Your task to perform on an android device: allow notifications from all sites in the chrome app Image 0: 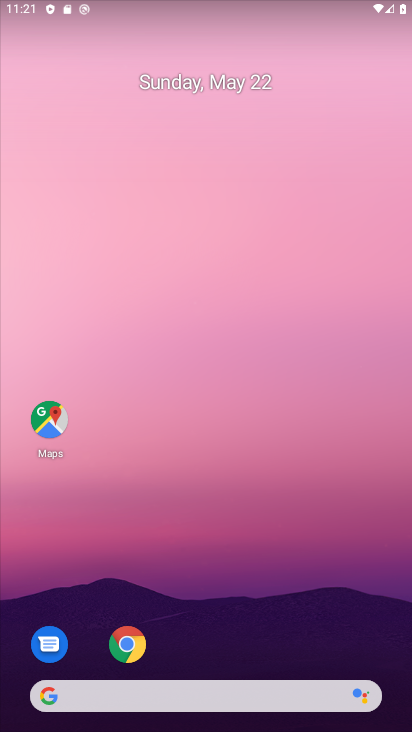
Step 0: drag from (326, 639) to (280, 82)
Your task to perform on an android device: allow notifications from all sites in the chrome app Image 1: 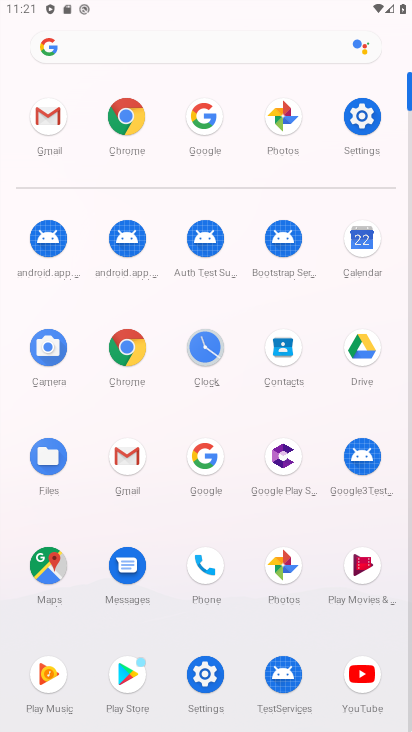
Step 1: click (118, 132)
Your task to perform on an android device: allow notifications from all sites in the chrome app Image 2: 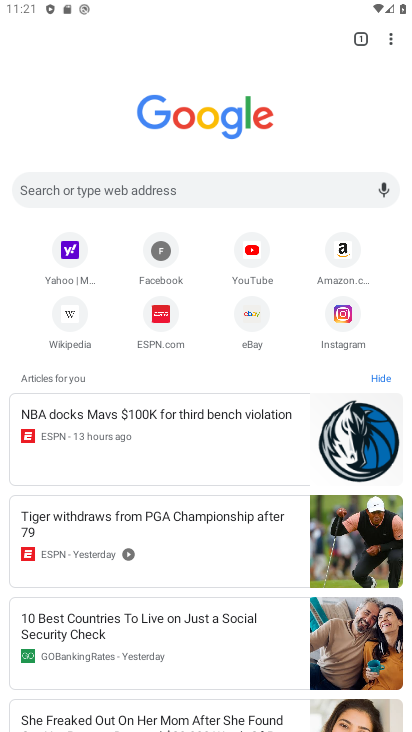
Step 2: click (393, 37)
Your task to perform on an android device: allow notifications from all sites in the chrome app Image 3: 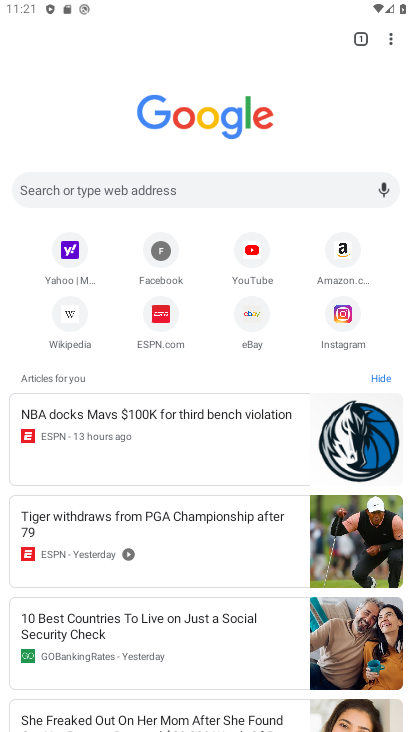
Step 3: click (388, 33)
Your task to perform on an android device: allow notifications from all sites in the chrome app Image 4: 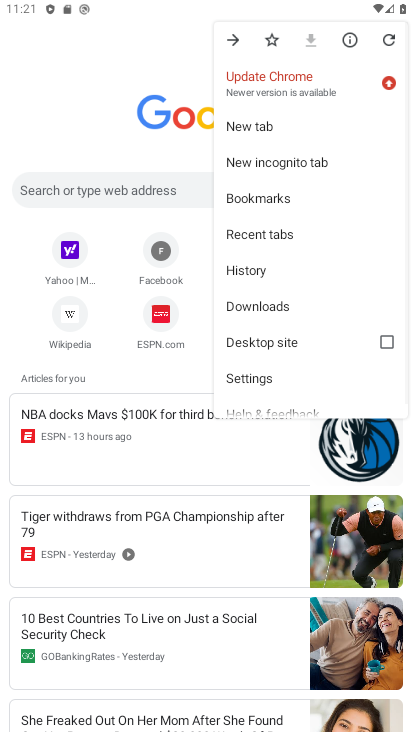
Step 4: click (262, 383)
Your task to perform on an android device: allow notifications from all sites in the chrome app Image 5: 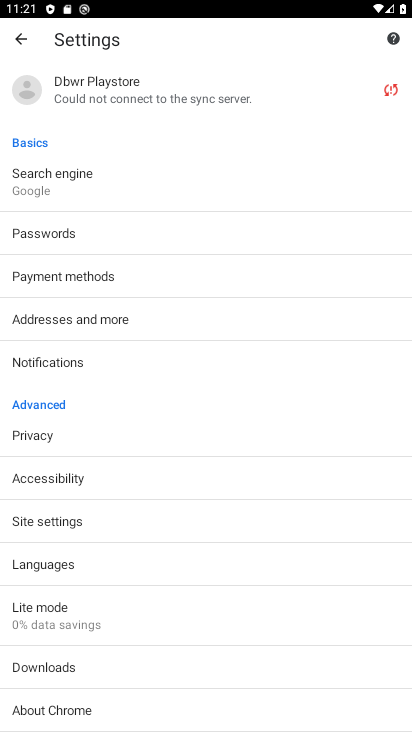
Step 5: click (82, 355)
Your task to perform on an android device: allow notifications from all sites in the chrome app Image 6: 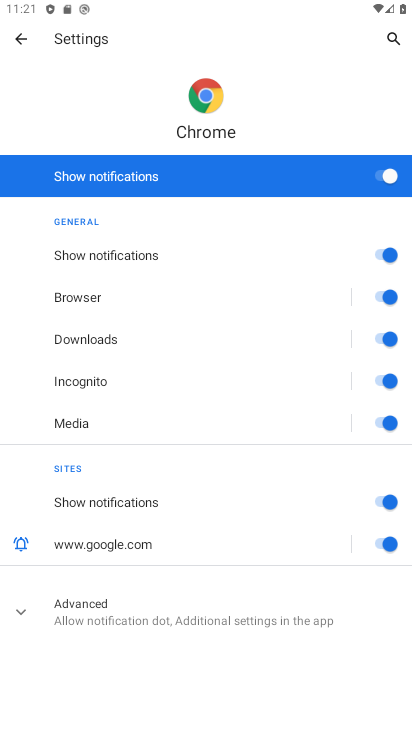
Step 6: task complete